Your task to perform on an android device: Go to Android settings Image 0: 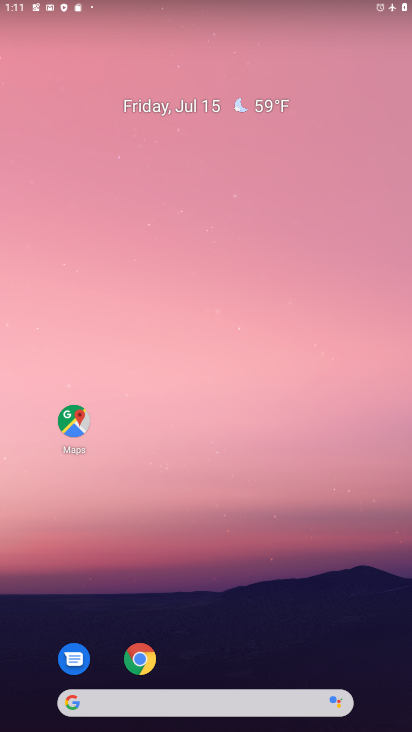
Step 0: drag from (232, 718) to (285, 173)
Your task to perform on an android device: Go to Android settings Image 1: 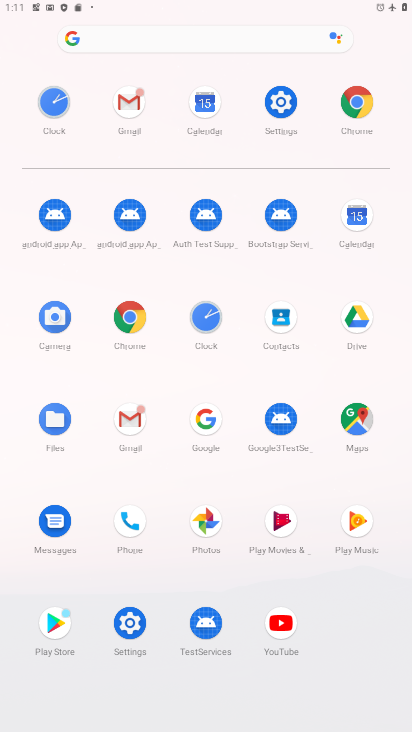
Step 1: click (271, 112)
Your task to perform on an android device: Go to Android settings Image 2: 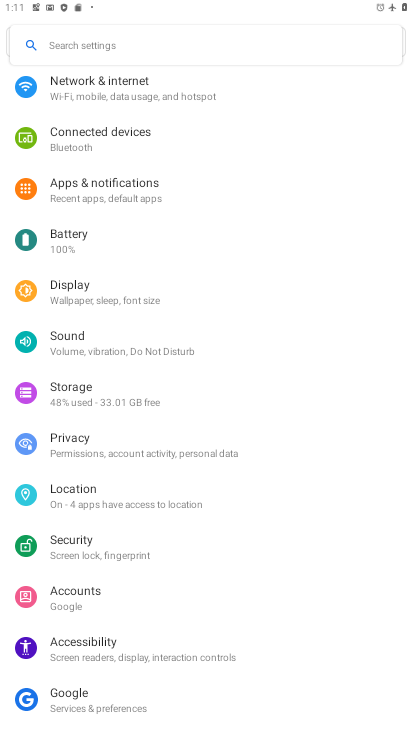
Step 2: task complete